Your task to perform on an android device: How much does the LG TV cost? Image 0: 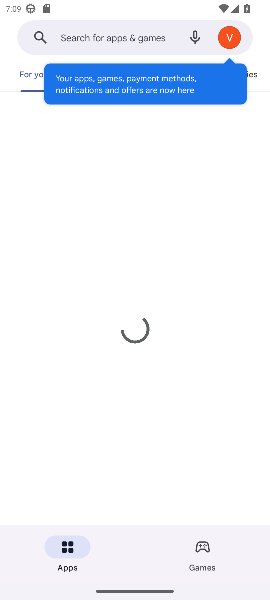
Step 0: press home button
Your task to perform on an android device: How much does the LG TV cost? Image 1: 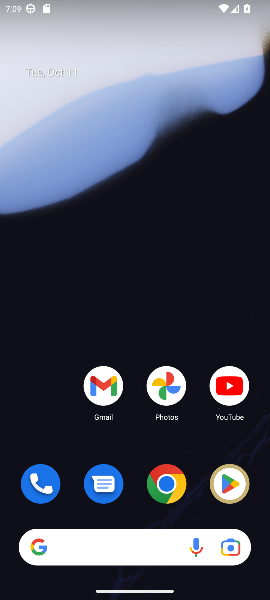
Step 1: click (164, 486)
Your task to perform on an android device: How much does the LG TV cost? Image 2: 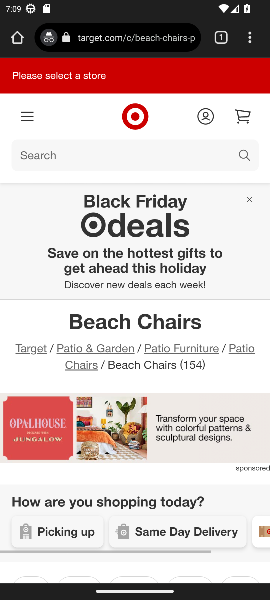
Step 2: click (160, 35)
Your task to perform on an android device: How much does the LG TV cost? Image 3: 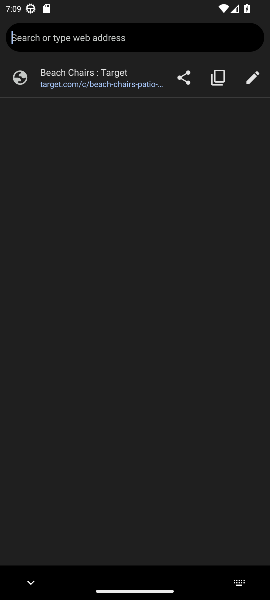
Step 3: type "How much does the LG TV cost?"
Your task to perform on an android device: How much does the LG TV cost? Image 4: 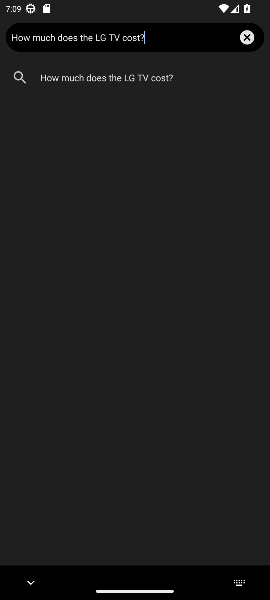
Step 4: click (157, 80)
Your task to perform on an android device: How much does the LG TV cost? Image 5: 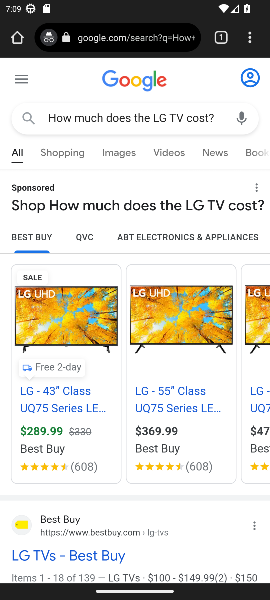
Step 5: task complete